Your task to perform on an android device: Open my contact list Image 0: 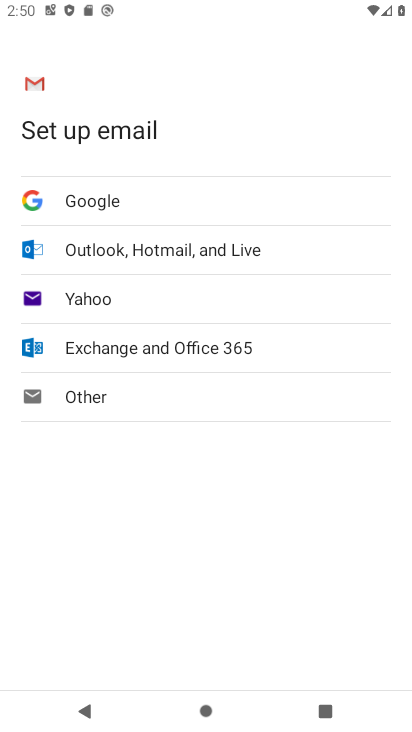
Step 0: press home button
Your task to perform on an android device: Open my contact list Image 1: 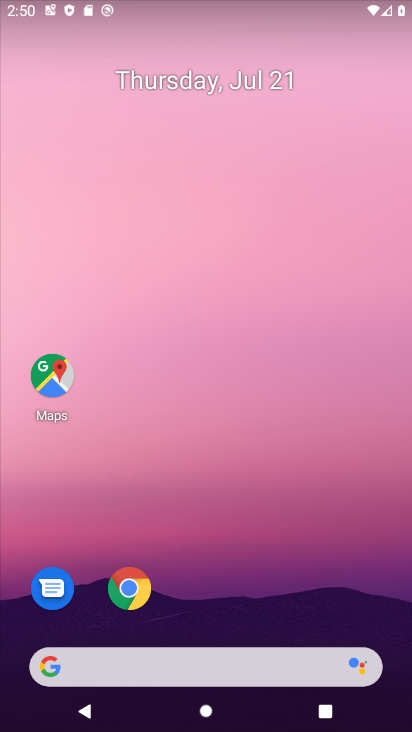
Step 1: drag from (248, 578) to (198, 201)
Your task to perform on an android device: Open my contact list Image 2: 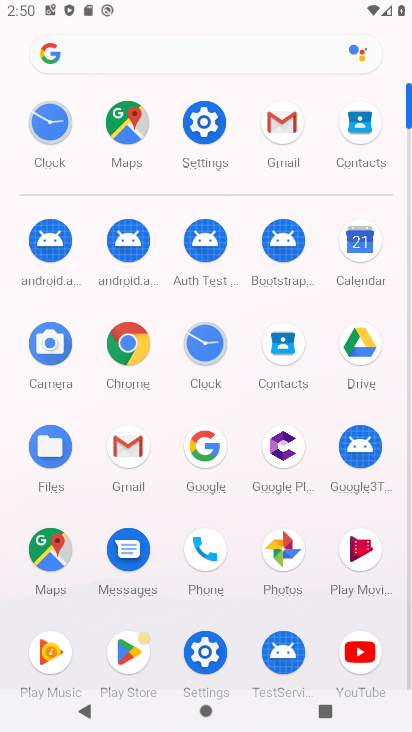
Step 2: click (284, 339)
Your task to perform on an android device: Open my contact list Image 3: 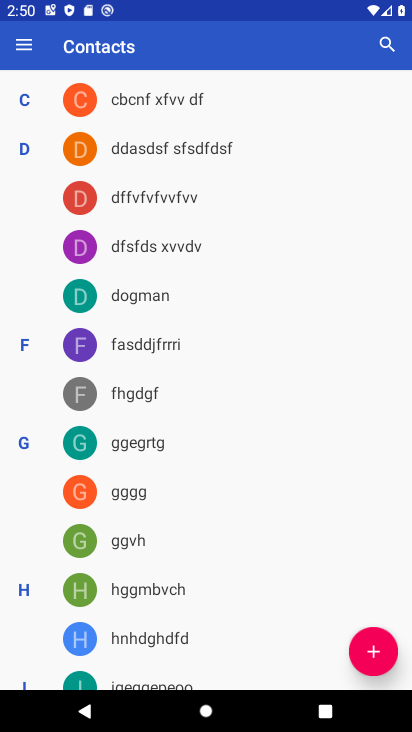
Step 3: task complete